Your task to perform on an android device: open wifi settings Image 0: 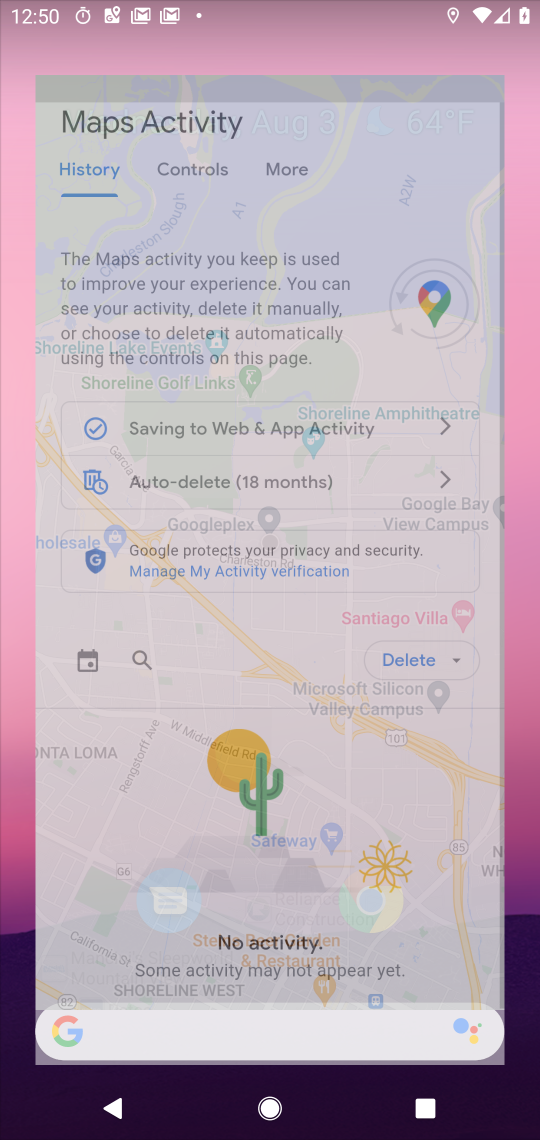
Step 0: press home button
Your task to perform on an android device: open wifi settings Image 1: 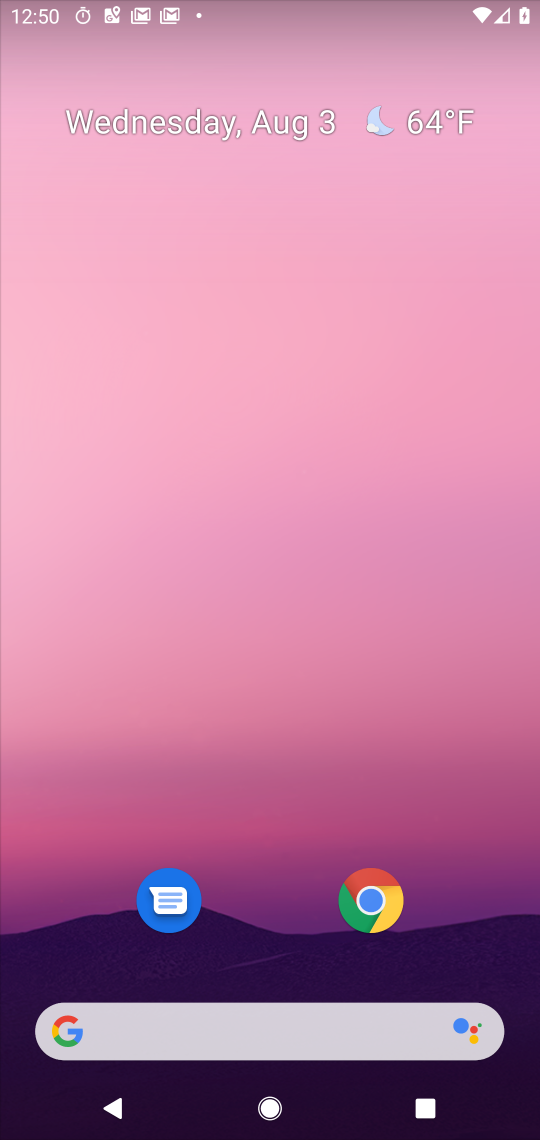
Step 1: drag from (387, 858) to (410, 22)
Your task to perform on an android device: open wifi settings Image 2: 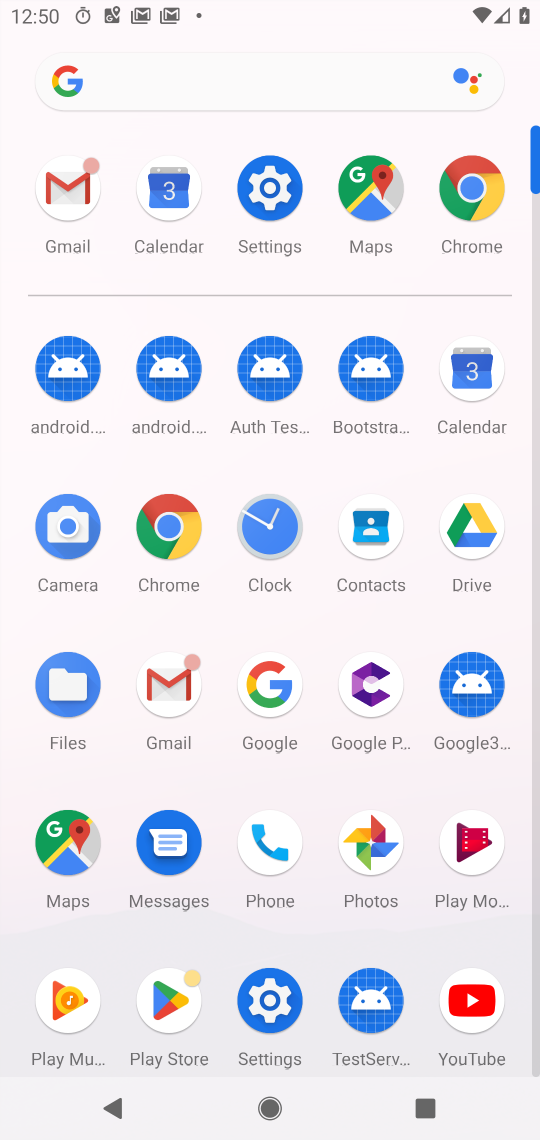
Step 2: click (280, 192)
Your task to perform on an android device: open wifi settings Image 3: 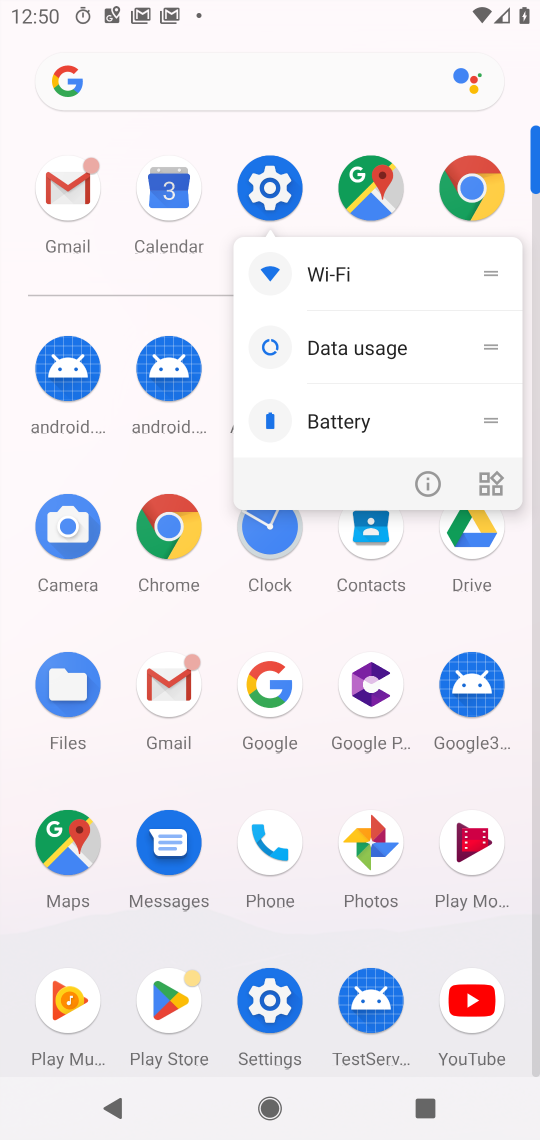
Step 3: click (263, 994)
Your task to perform on an android device: open wifi settings Image 4: 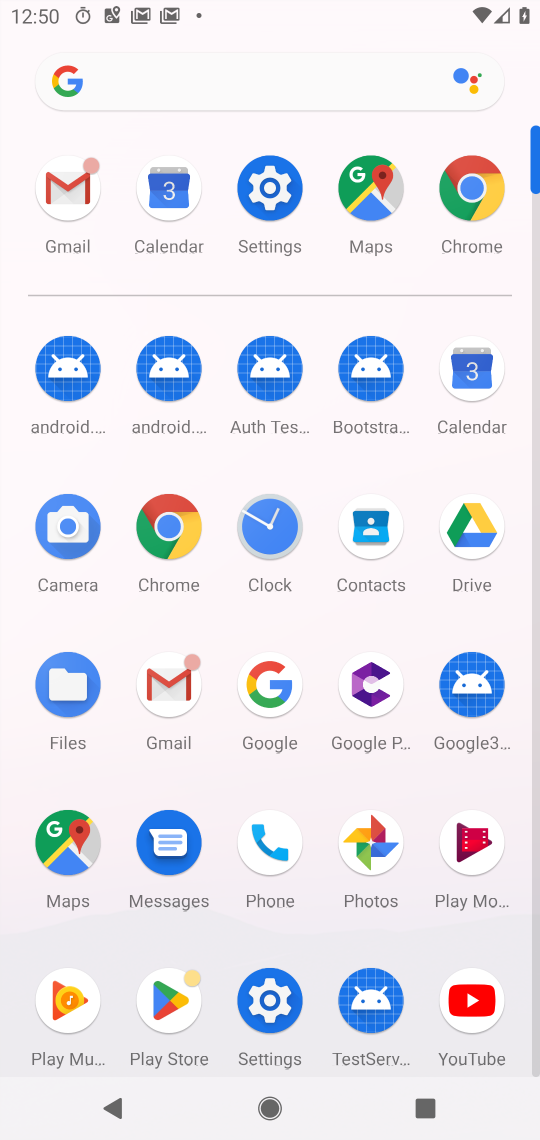
Step 4: click (271, 999)
Your task to perform on an android device: open wifi settings Image 5: 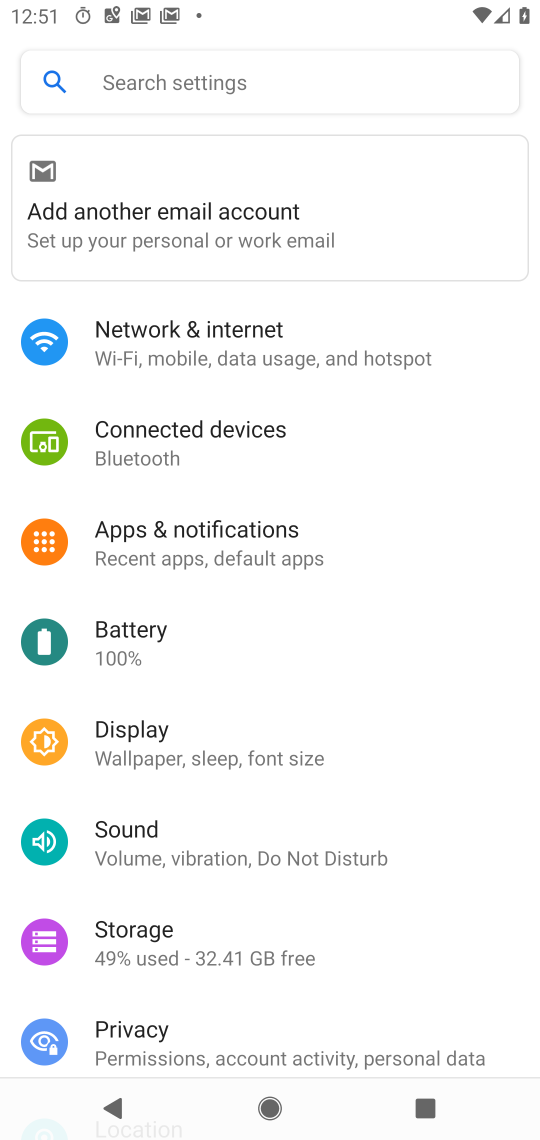
Step 5: click (118, 333)
Your task to perform on an android device: open wifi settings Image 6: 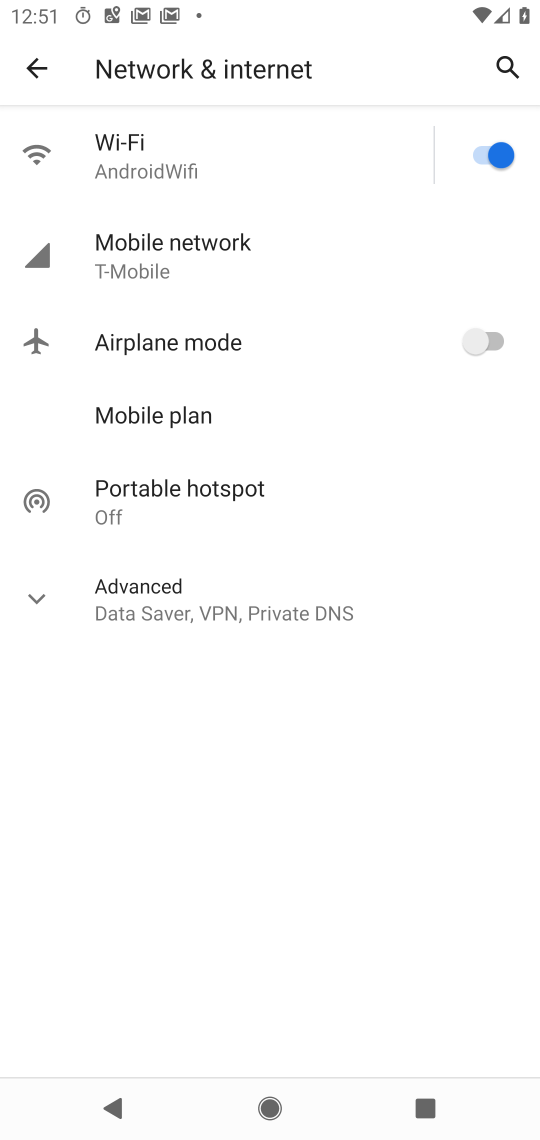
Step 6: click (263, 155)
Your task to perform on an android device: open wifi settings Image 7: 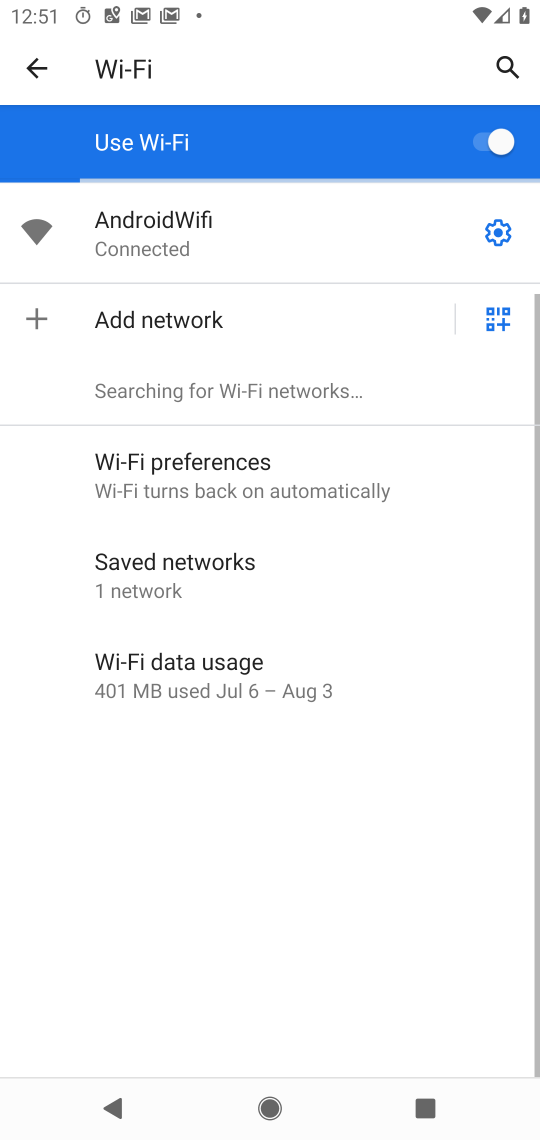
Step 7: click (507, 235)
Your task to perform on an android device: open wifi settings Image 8: 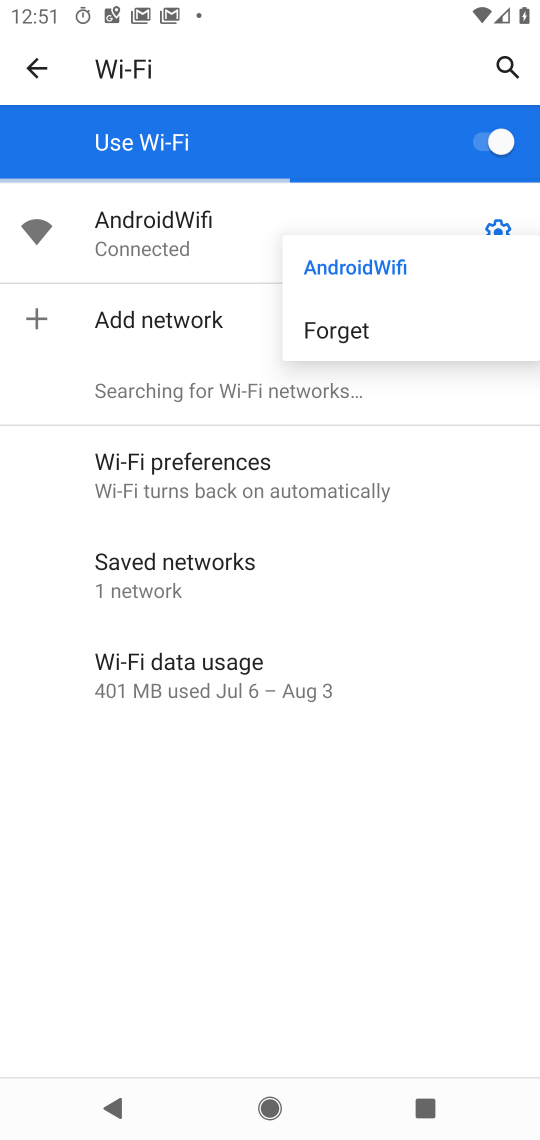
Step 8: click (512, 215)
Your task to perform on an android device: open wifi settings Image 9: 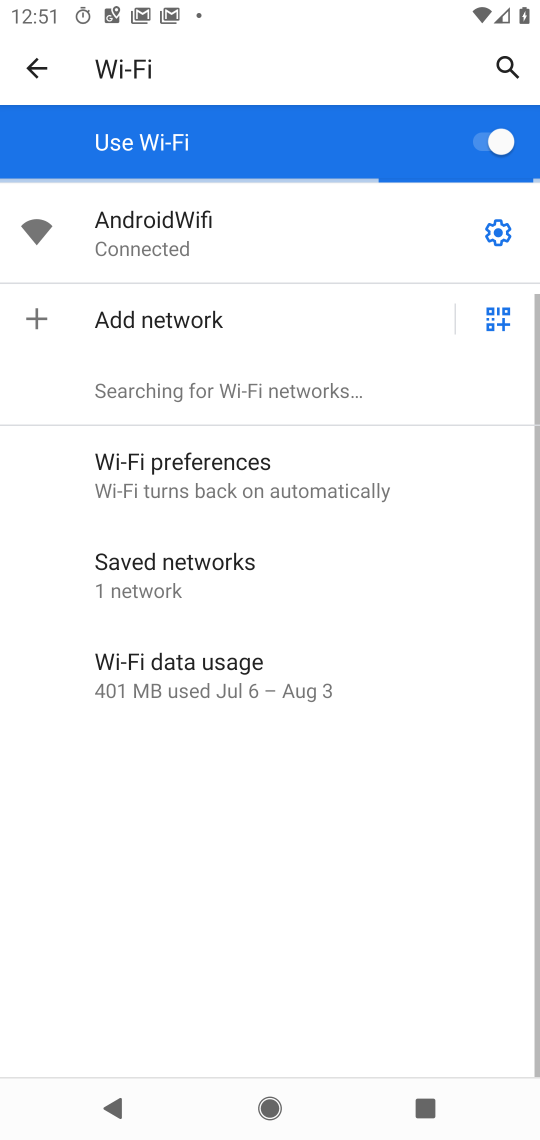
Step 9: click (504, 225)
Your task to perform on an android device: open wifi settings Image 10: 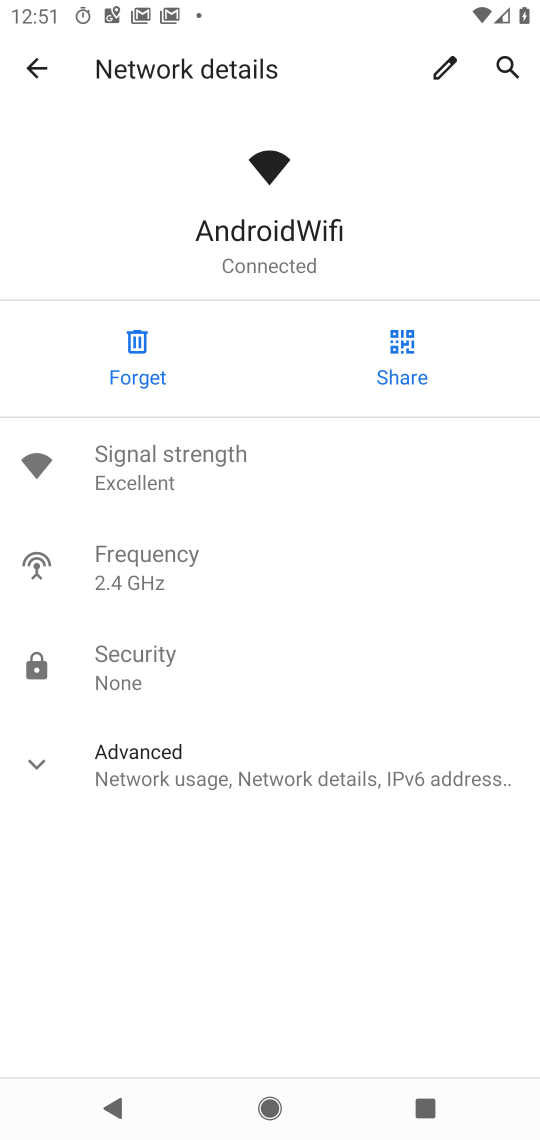
Step 10: task complete